Your task to perform on an android device: turn on the 12-hour format for clock Image 0: 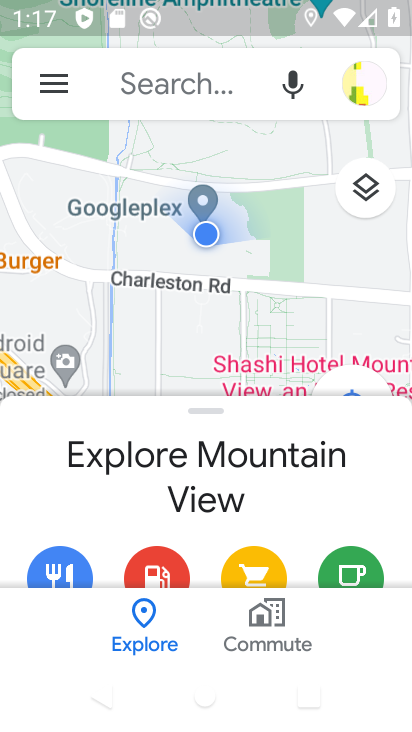
Step 0: press home button
Your task to perform on an android device: turn on the 12-hour format for clock Image 1: 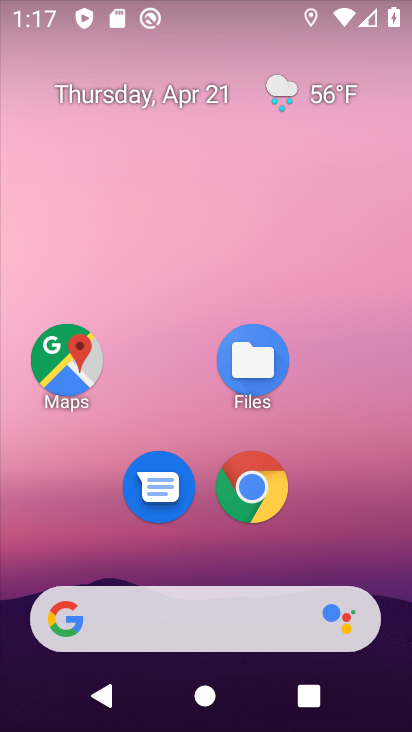
Step 1: drag from (374, 531) to (373, 221)
Your task to perform on an android device: turn on the 12-hour format for clock Image 2: 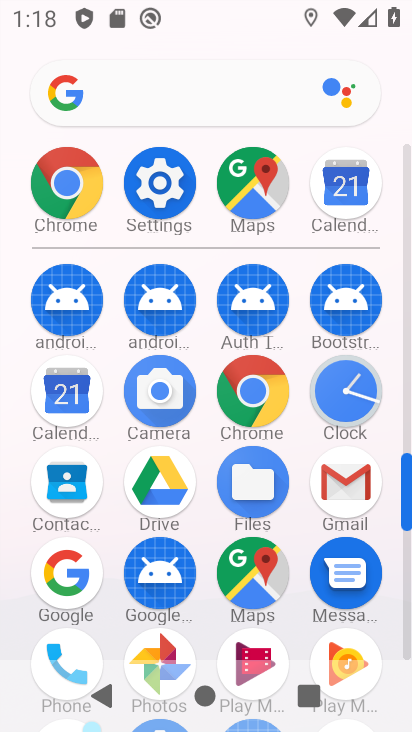
Step 2: click (335, 379)
Your task to perform on an android device: turn on the 12-hour format for clock Image 3: 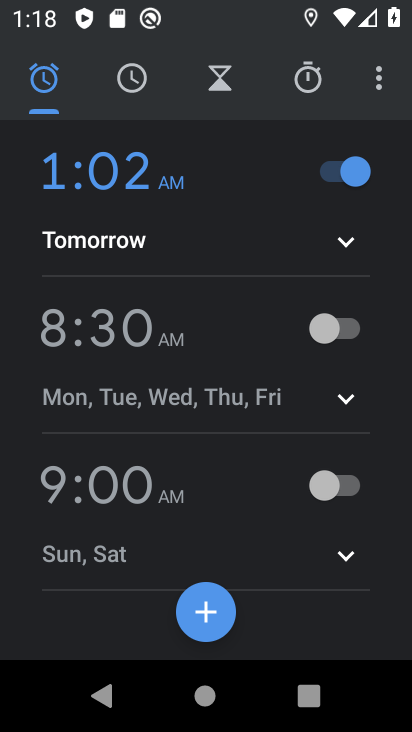
Step 3: click (377, 92)
Your task to perform on an android device: turn on the 12-hour format for clock Image 4: 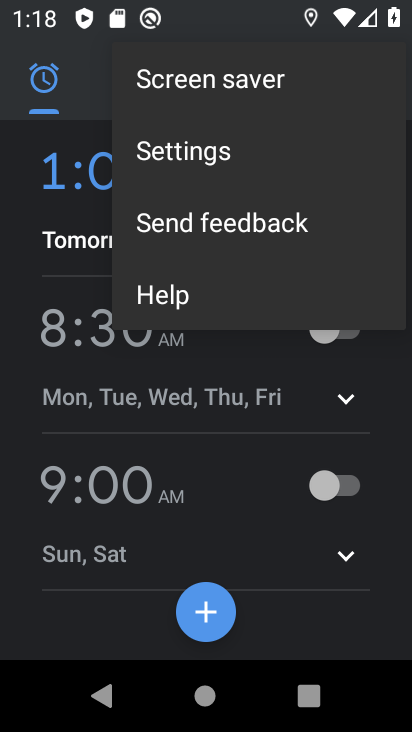
Step 4: click (146, 168)
Your task to perform on an android device: turn on the 12-hour format for clock Image 5: 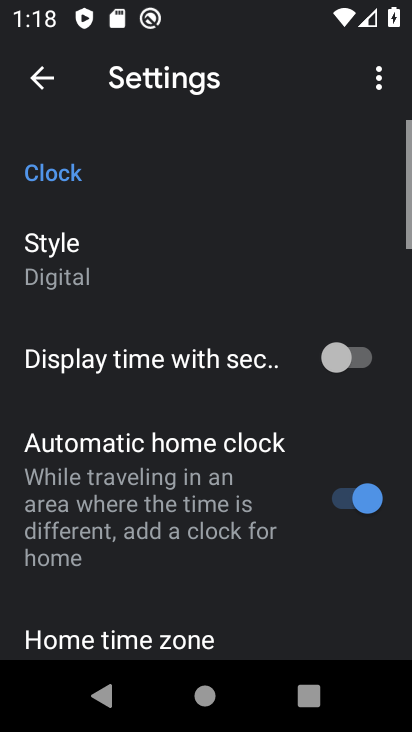
Step 5: drag from (103, 603) to (139, 302)
Your task to perform on an android device: turn on the 12-hour format for clock Image 6: 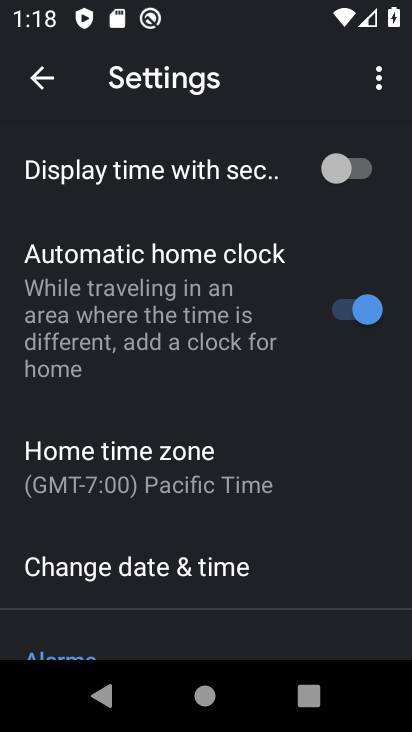
Step 6: click (100, 584)
Your task to perform on an android device: turn on the 12-hour format for clock Image 7: 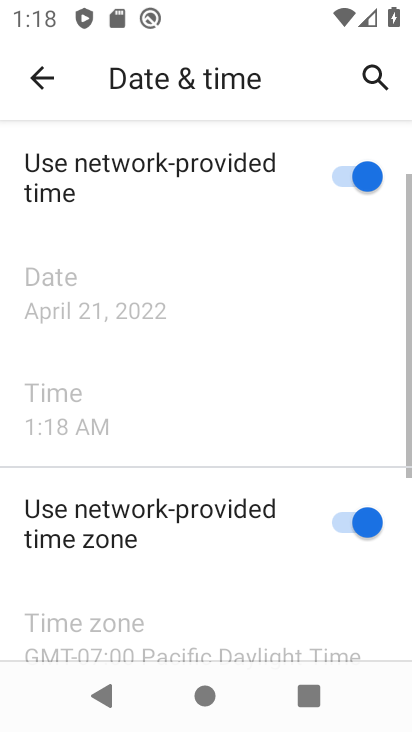
Step 7: task complete